Your task to perform on an android device: See recent photos Image 0: 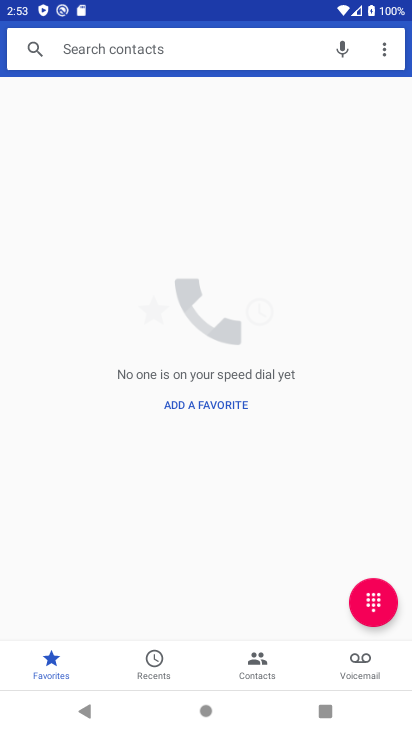
Step 0: press back button
Your task to perform on an android device: See recent photos Image 1: 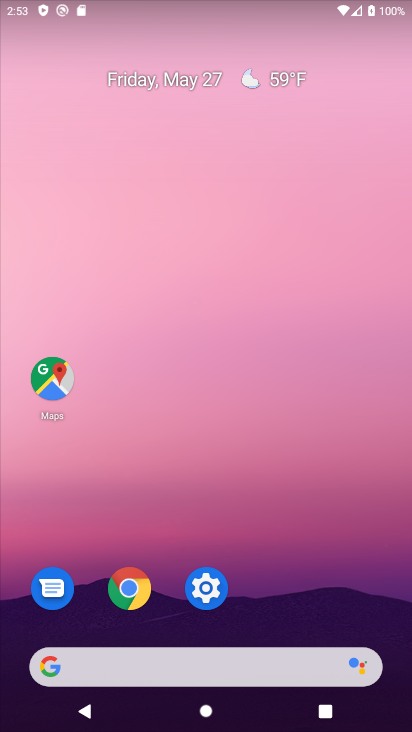
Step 1: drag from (161, 104) to (134, 52)
Your task to perform on an android device: See recent photos Image 2: 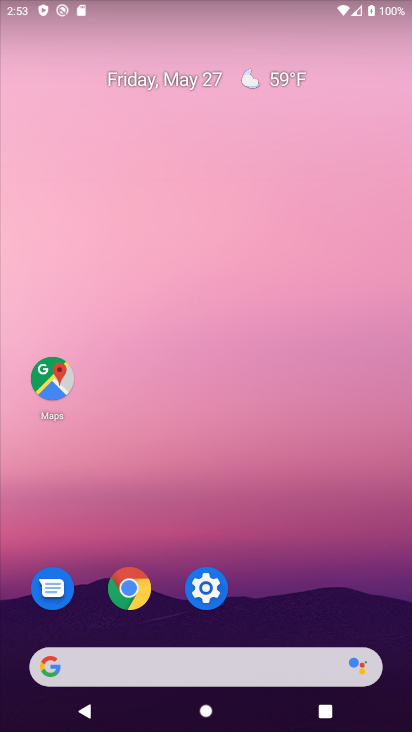
Step 2: drag from (150, 8) to (152, 43)
Your task to perform on an android device: See recent photos Image 3: 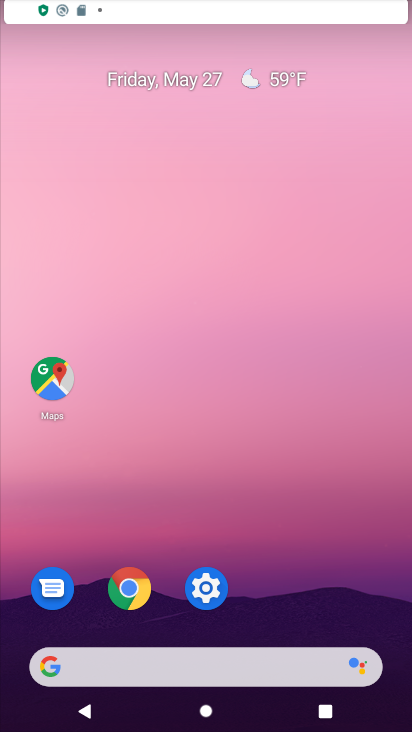
Step 3: drag from (75, 54) to (60, 14)
Your task to perform on an android device: See recent photos Image 4: 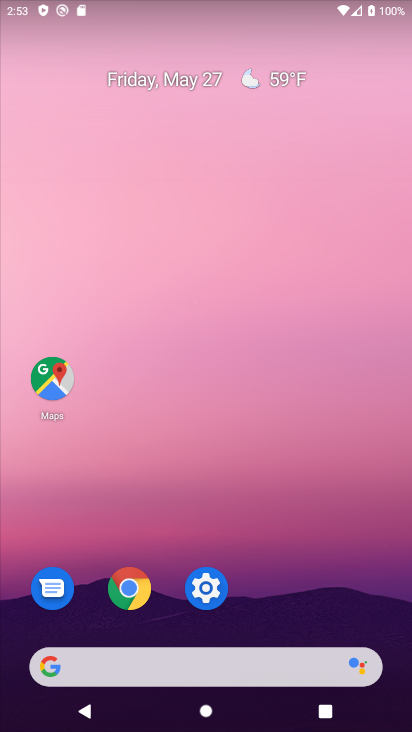
Step 4: drag from (184, 211) to (137, 24)
Your task to perform on an android device: See recent photos Image 5: 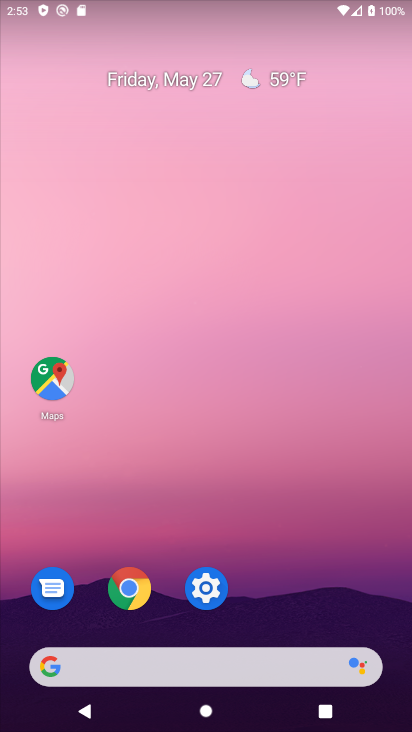
Step 5: drag from (91, 45) to (58, 64)
Your task to perform on an android device: See recent photos Image 6: 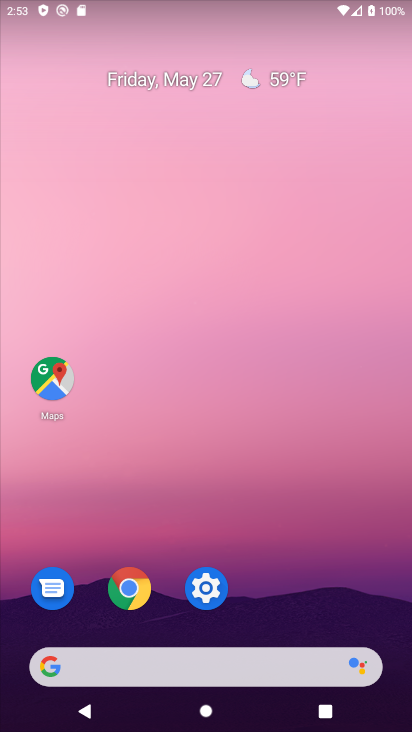
Step 6: drag from (286, 523) to (48, 6)
Your task to perform on an android device: See recent photos Image 7: 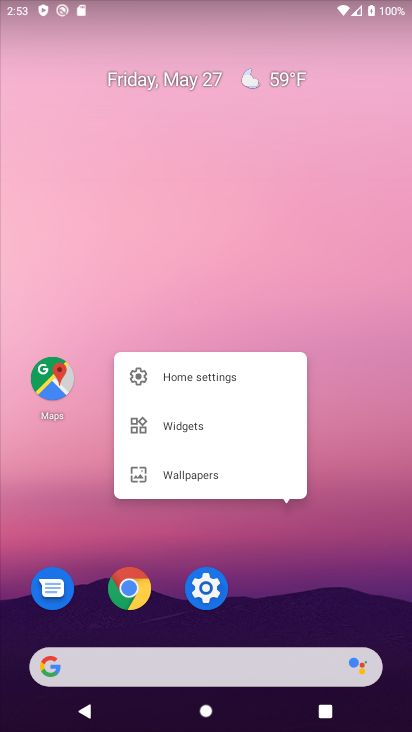
Step 7: drag from (224, 471) to (85, 60)
Your task to perform on an android device: See recent photos Image 8: 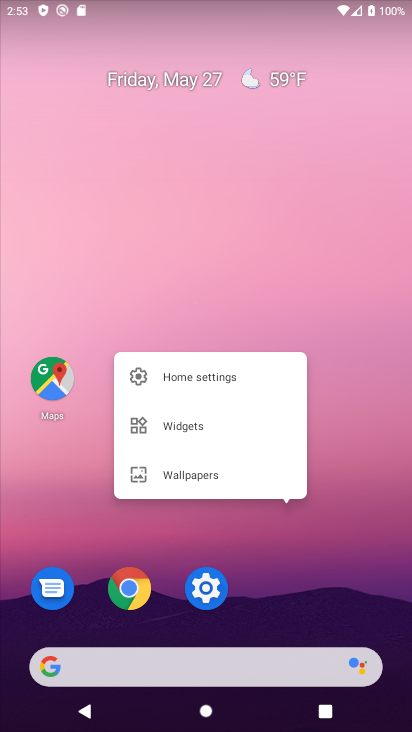
Step 8: click (147, 204)
Your task to perform on an android device: See recent photos Image 9: 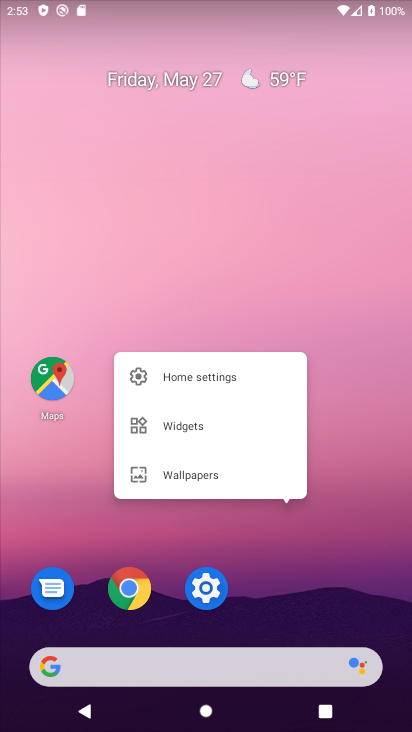
Step 9: click (147, 204)
Your task to perform on an android device: See recent photos Image 10: 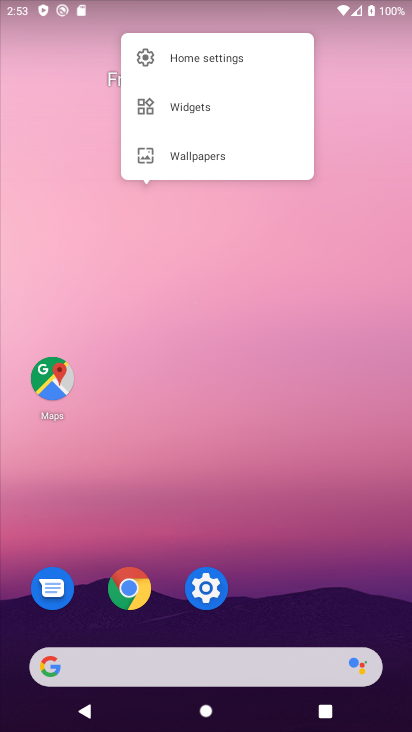
Step 10: drag from (311, 578) to (73, 38)
Your task to perform on an android device: See recent photos Image 11: 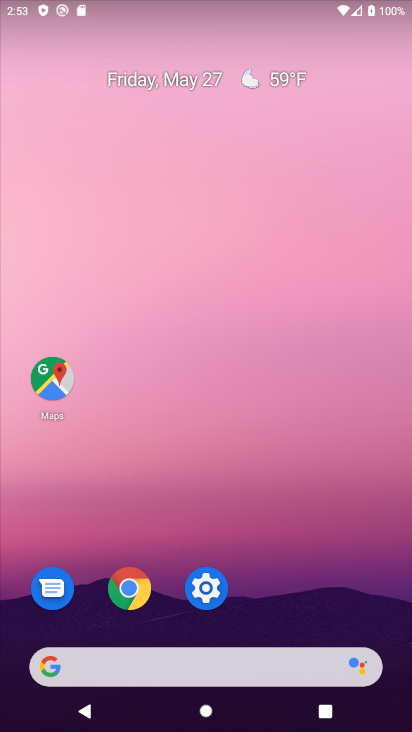
Step 11: drag from (234, 362) to (96, 28)
Your task to perform on an android device: See recent photos Image 12: 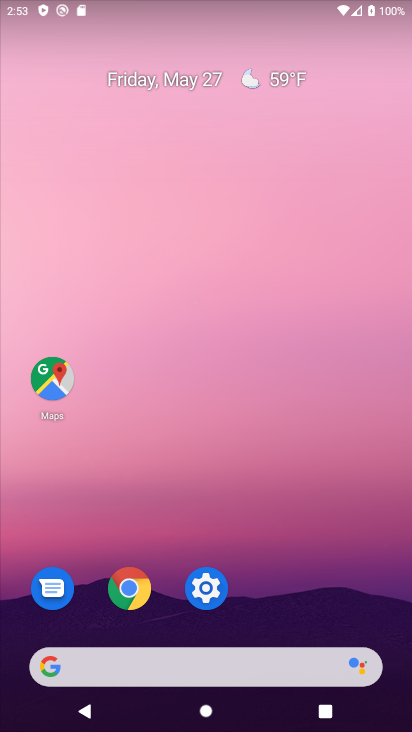
Step 12: drag from (183, 305) to (79, 23)
Your task to perform on an android device: See recent photos Image 13: 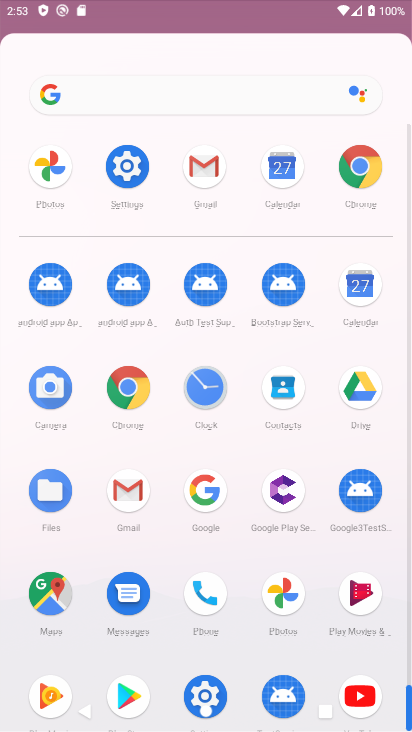
Step 13: drag from (155, 447) to (85, 20)
Your task to perform on an android device: See recent photos Image 14: 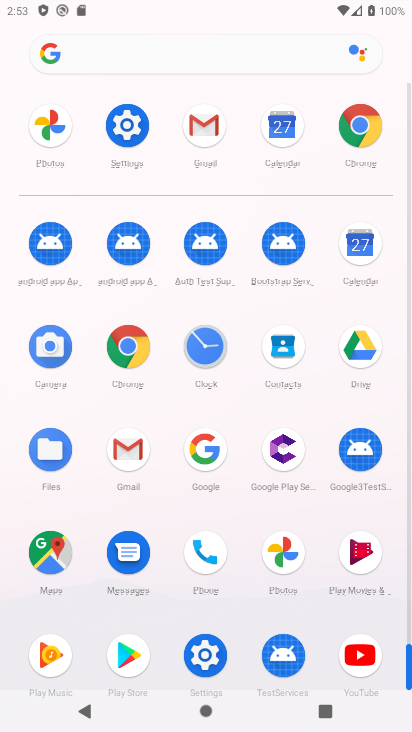
Step 14: click (93, 37)
Your task to perform on an android device: See recent photos Image 15: 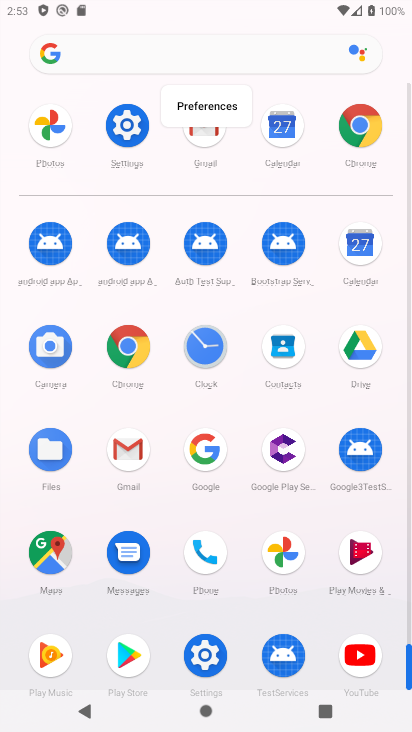
Step 15: click (285, 553)
Your task to perform on an android device: See recent photos Image 16: 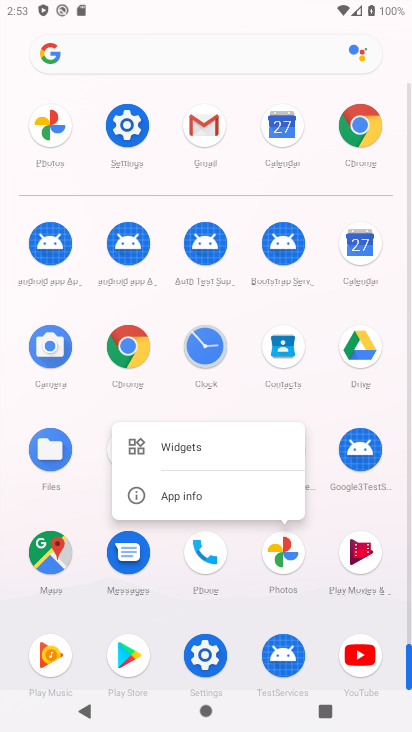
Step 16: click (290, 582)
Your task to perform on an android device: See recent photos Image 17: 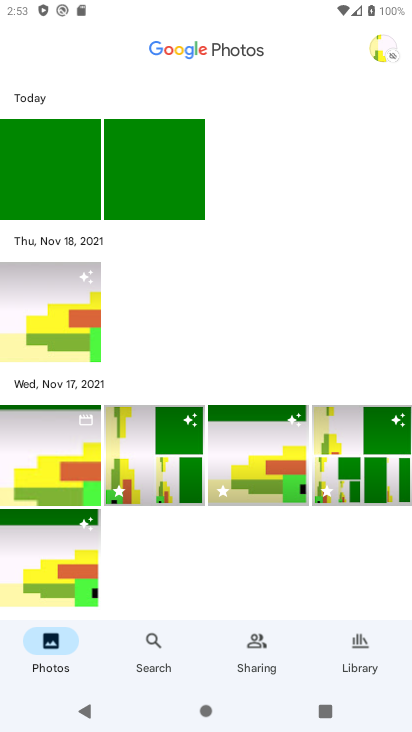
Step 17: click (274, 546)
Your task to perform on an android device: See recent photos Image 18: 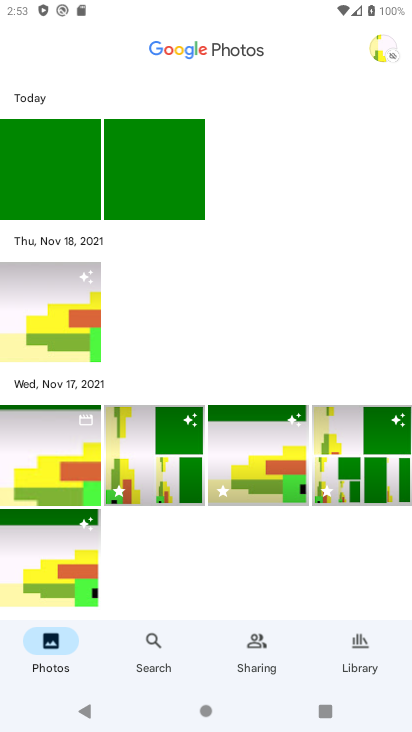
Step 18: click (93, 152)
Your task to perform on an android device: See recent photos Image 19: 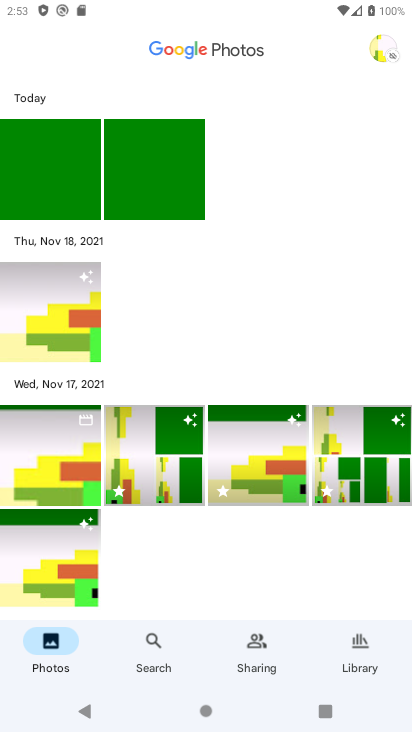
Step 19: click (82, 93)
Your task to perform on an android device: See recent photos Image 20: 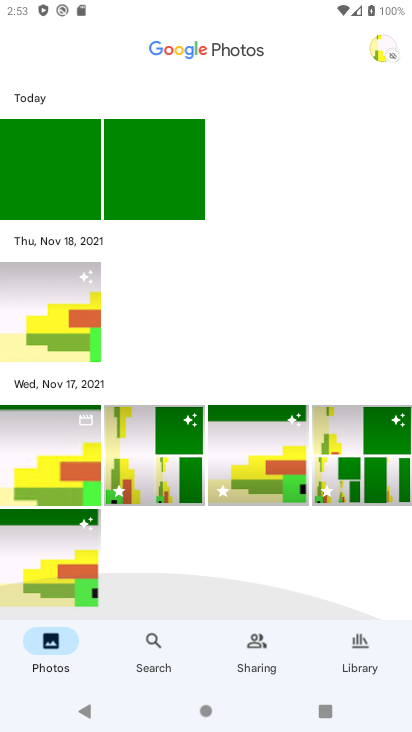
Step 20: click (107, 172)
Your task to perform on an android device: See recent photos Image 21: 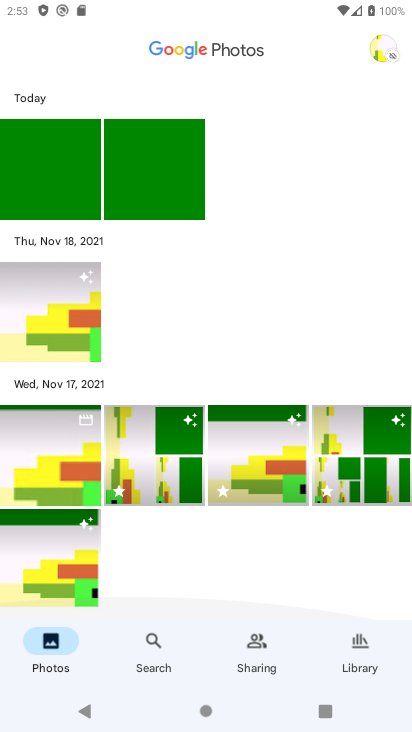
Step 21: drag from (226, 575) to (199, 154)
Your task to perform on an android device: See recent photos Image 22: 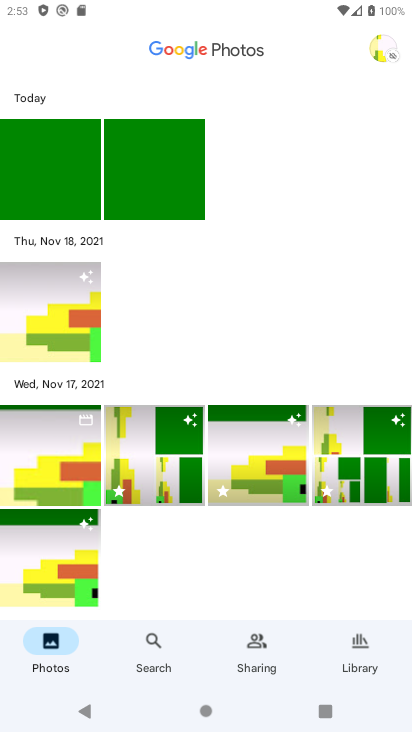
Step 22: drag from (211, 515) to (169, 165)
Your task to perform on an android device: See recent photos Image 23: 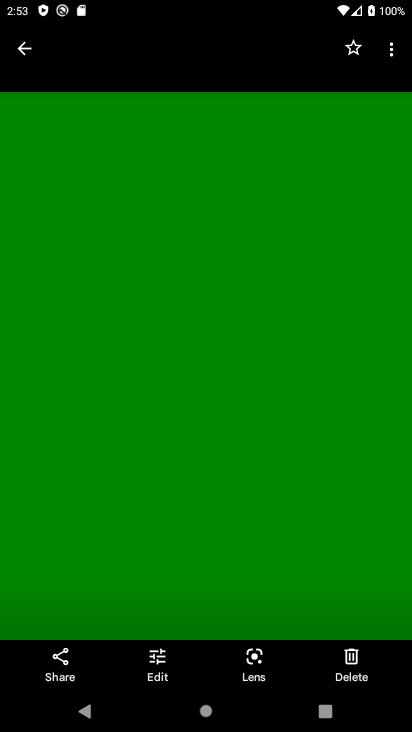
Step 23: drag from (161, 354) to (126, 176)
Your task to perform on an android device: See recent photos Image 24: 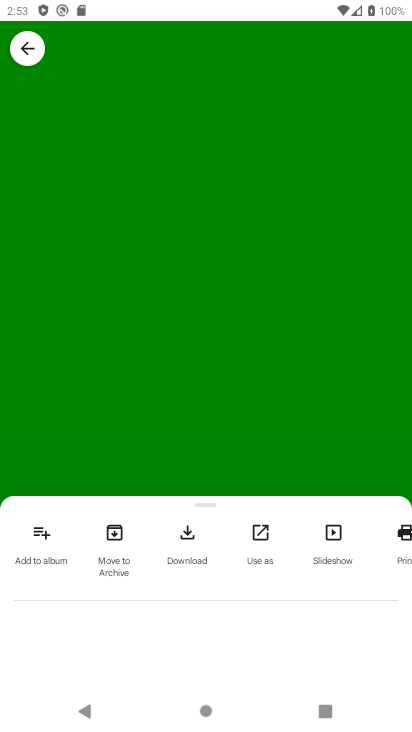
Step 24: click (15, 151)
Your task to perform on an android device: See recent photos Image 25: 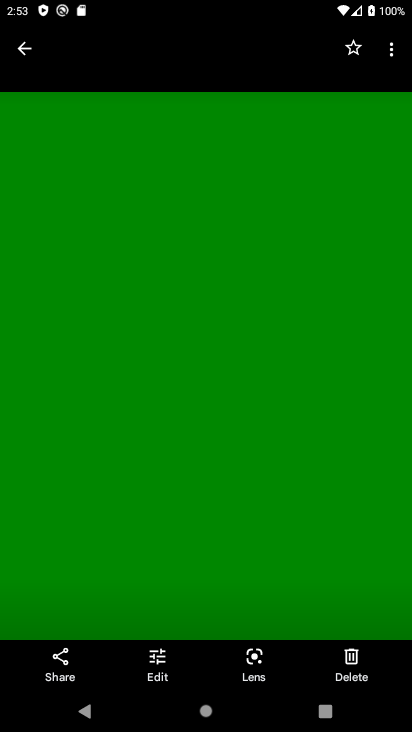
Step 25: click (17, 58)
Your task to perform on an android device: See recent photos Image 26: 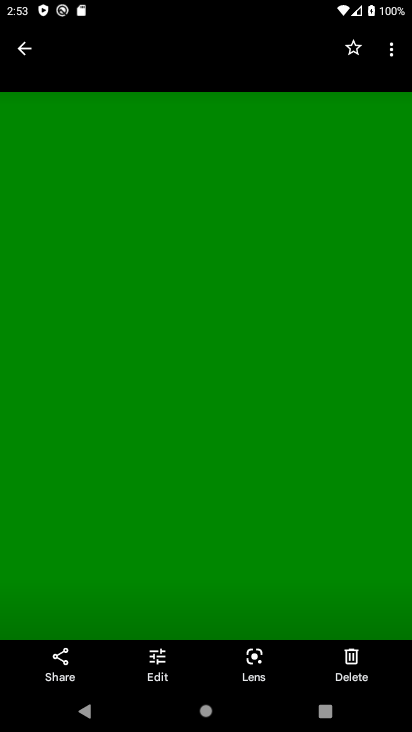
Step 26: click (28, 49)
Your task to perform on an android device: See recent photos Image 27: 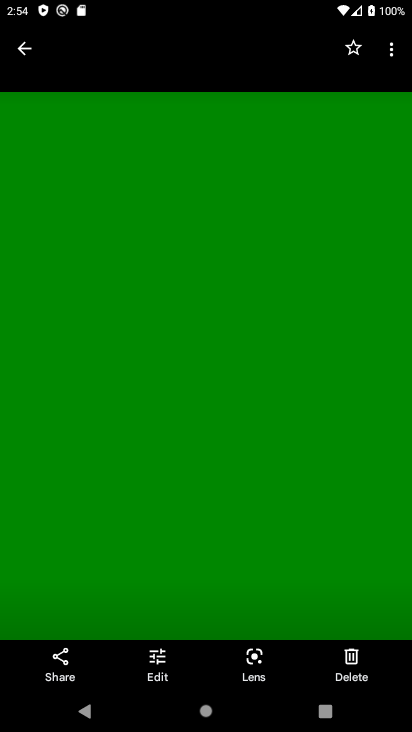
Step 27: click (24, 54)
Your task to perform on an android device: See recent photos Image 28: 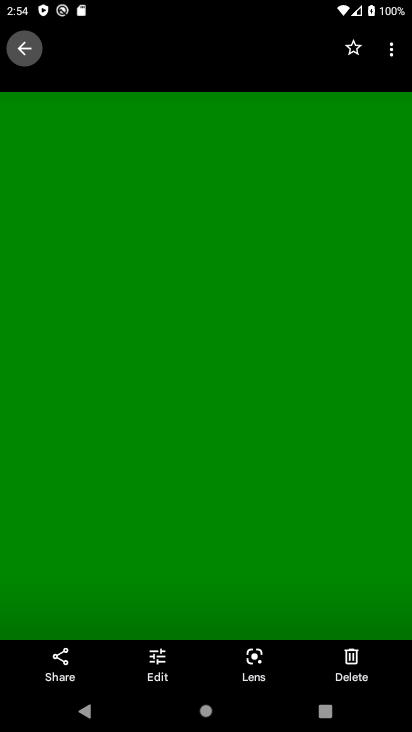
Step 28: click (24, 54)
Your task to perform on an android device: See recent photos Image 29: 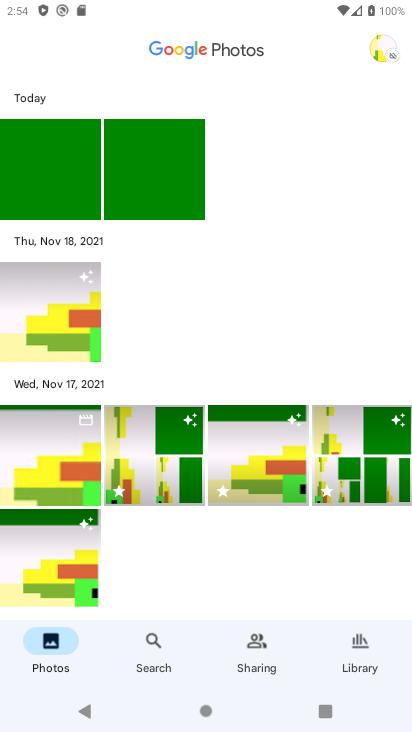
Step 29: click (22, 54)
Your task to perform on an android device: See recent photos Image 30: 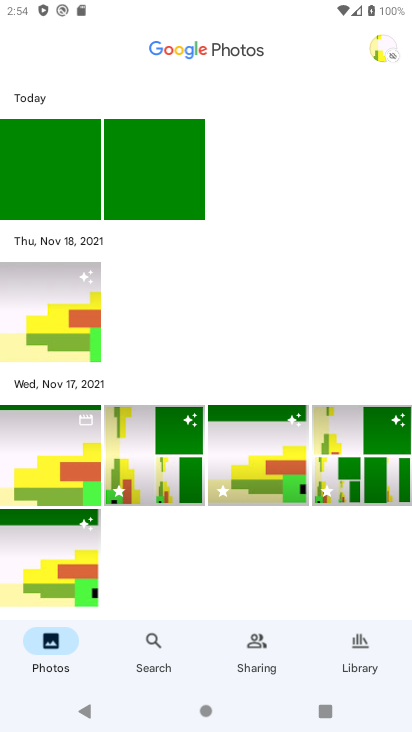
Step 30: click (30, 74)
Your task to perform on an android device: See recent photos Image 31: 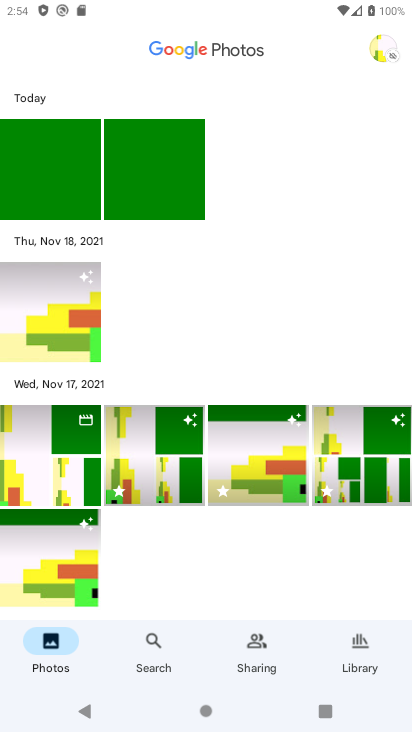
Step 31: task complete